Your task to perform on an android device: Open calendar and show me the third week of next month Image 0: 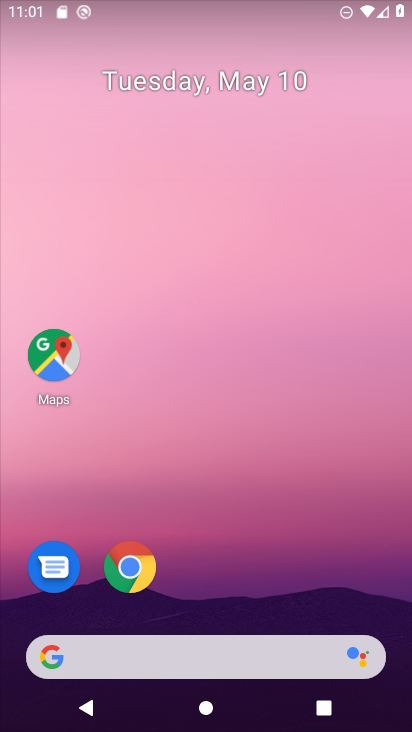
Step 0: drag from (187, 557) to (210, 135)
Your task to perform on an android device: Open calendar and show me the third week of next month Image 1: 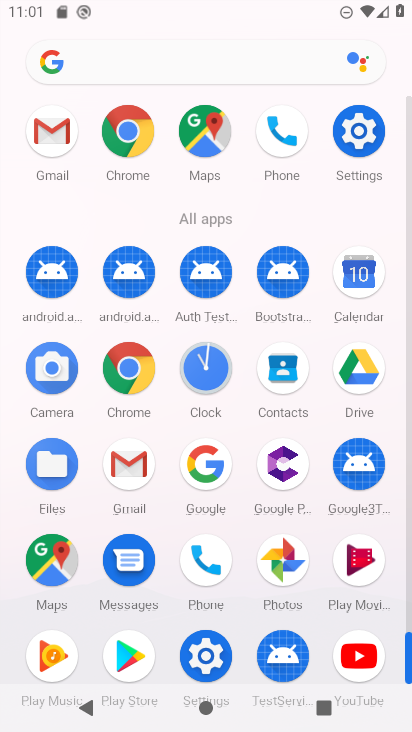
Step 1: click (375, 278)
Your task to perform on an android device: Open calendar and show me the third week of next month Image 2: 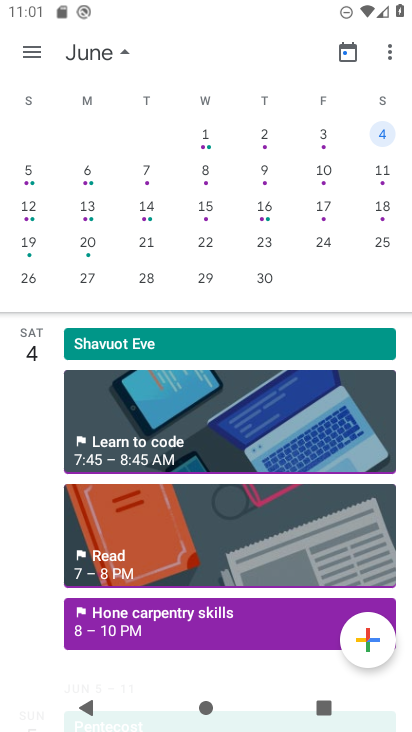
Step 2: click (30, 212)
Your task to perform on an android device: Open calendar and show me the third week of next month Image 3: 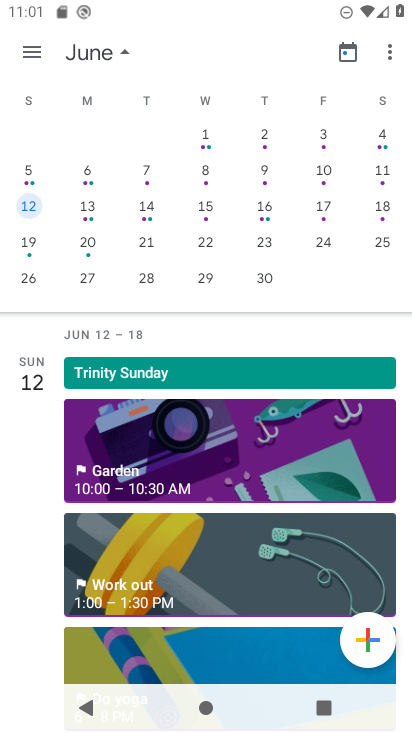
Step 3: click (96, 215)
Your task to perform on an android device: Open calendar and show me the third week of next month Image 4: 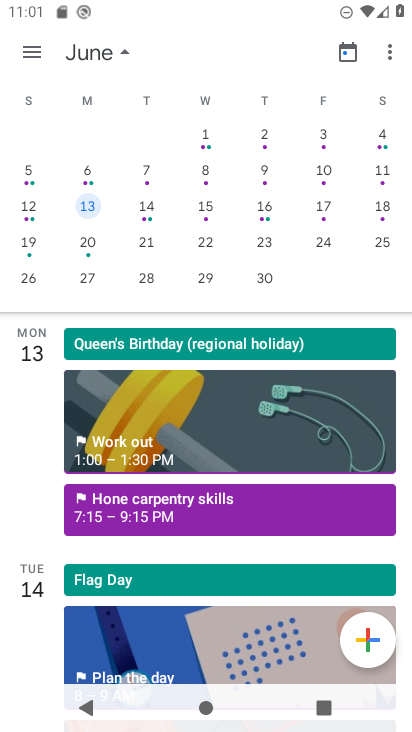
Step 4: click (161, 220)
Your task to perform on an android device: Open calendar and show me the third week of next month Image 5: 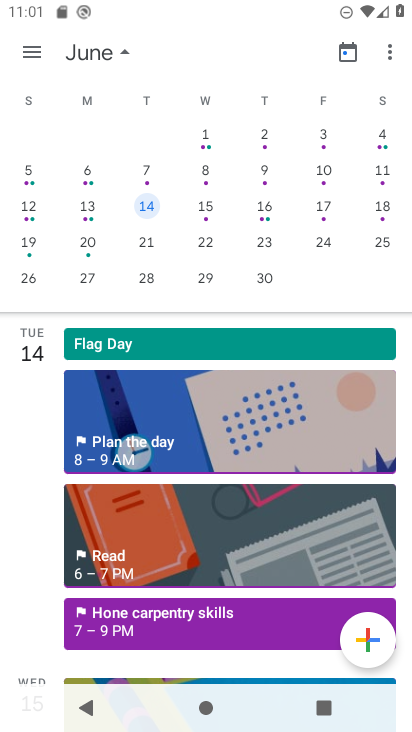
Step 5: click (203, 219)
Your task to perform on an android device: Open calendar and show me the third week of next month Image 6: 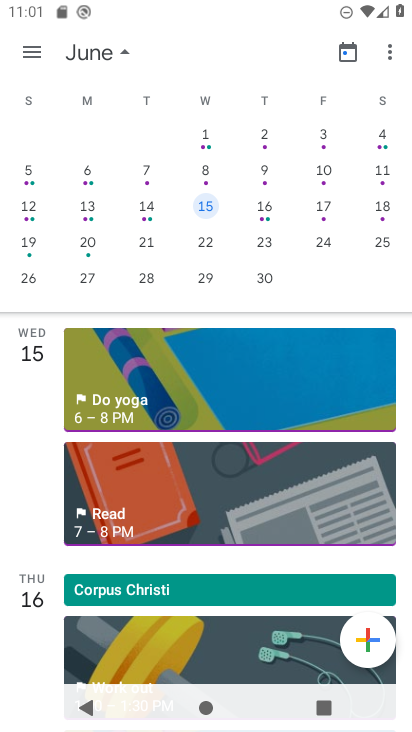
Step 6: click (262, 216)
Your task to perform on an android device: Open calendar and show me the third week of next month Image 7: 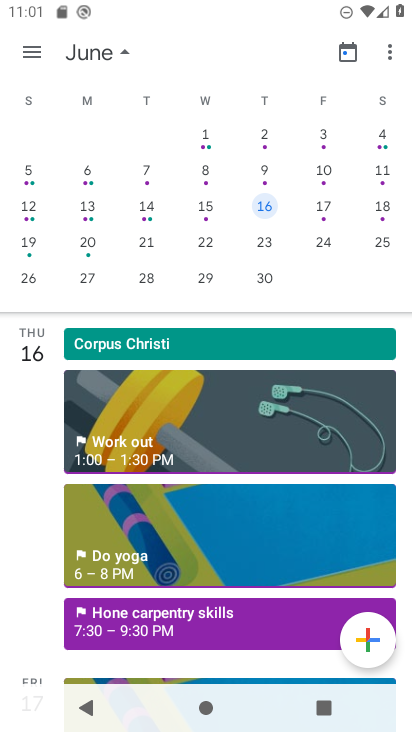
Step 7: click (314, 212)
Your task to perform on an android device: Open calendar and show me the third week of next month Image 8: 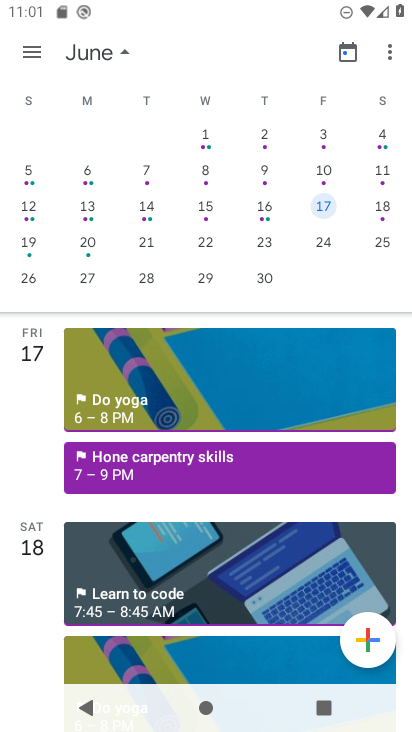
Step 8: click (370, 216)
Your task to perform on an android device: Open calendar and show me the third week of next month Image 9: 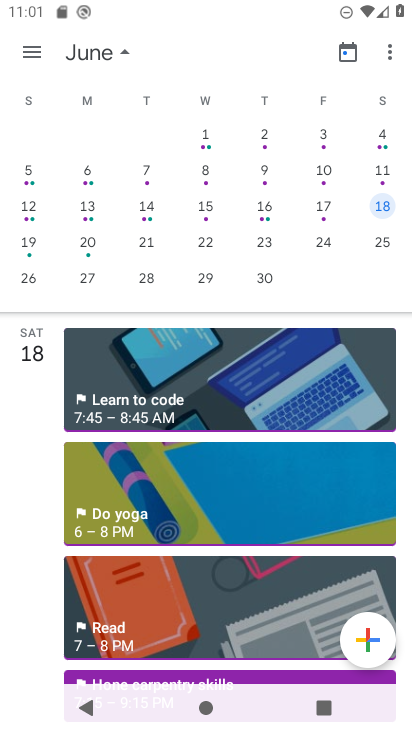
Step 9: task complete